Your task to perform on an android device: Toggle the flashlight Image 0: 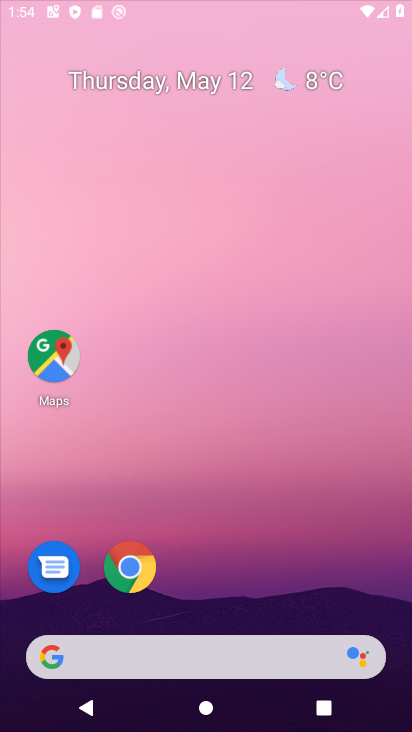
Step 0: click (211, 48)
Your task to perform on an android device: Toggle the flashlight Image 1: 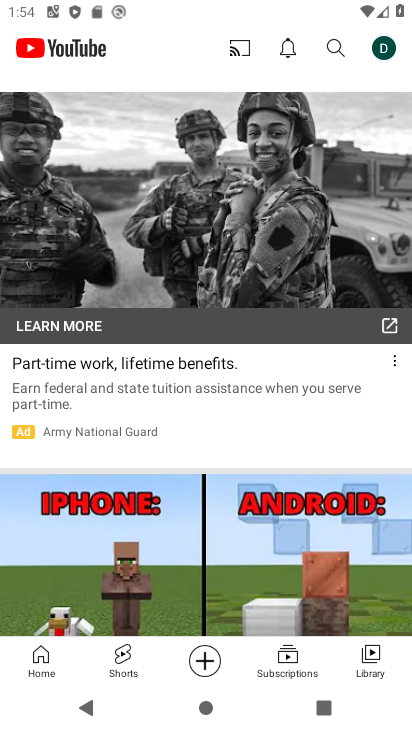
Step 1: press home button
Your task to perform on an android device: Toggle the flashlight Image 2: 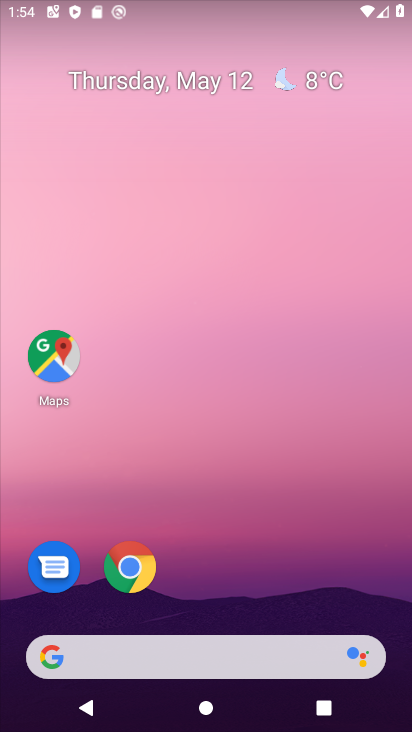
Step 2: drag from (234, 598) to (226, 134)
Your task to perform on an android device: Toggle the flashlight Image 3: 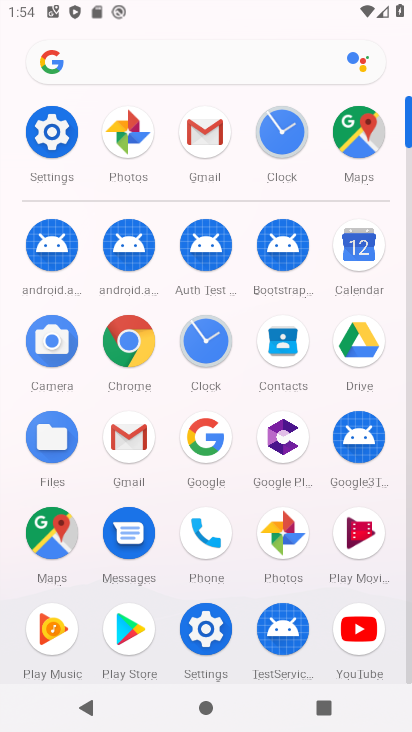
Step 3: click (200, 619)
Your task to perform on an android device: Toggle the flashlight Image 4: 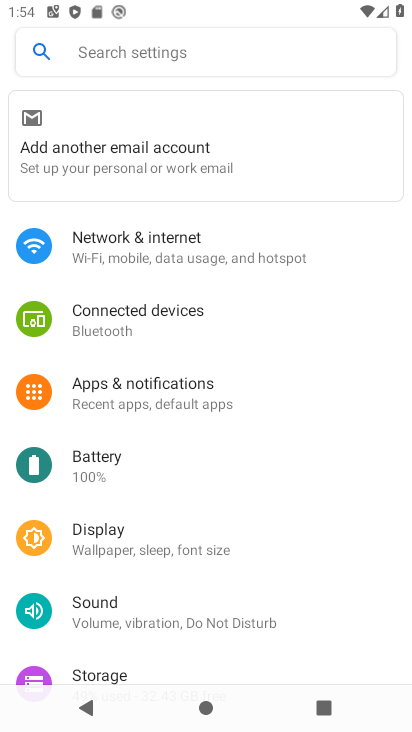
Step 4: click (138, 49)
Your task to perform on an android device: Toggle the flashlight Image 5: 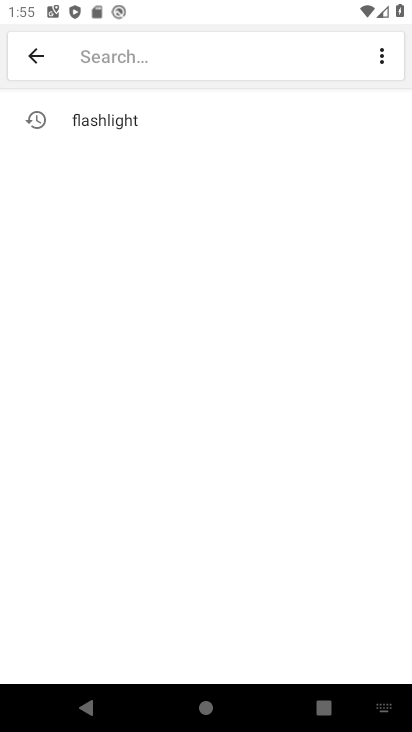
Step 5: click (132, 107)
Your task to perform on an android device: Toggle the flashlight Image 6: 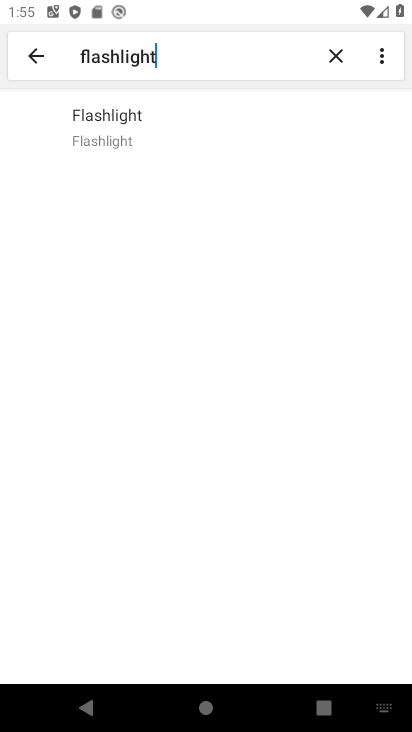
Step 6: click (150, 126)
Your task to perform on an android device: Toggle the flashlight Image 7: 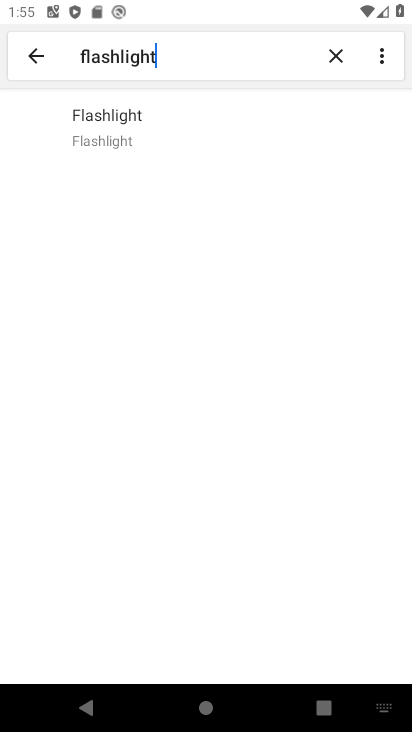
Step 7: click (137, 117)
Your task to perform on an android device: Toggle the flashlight Image 8: 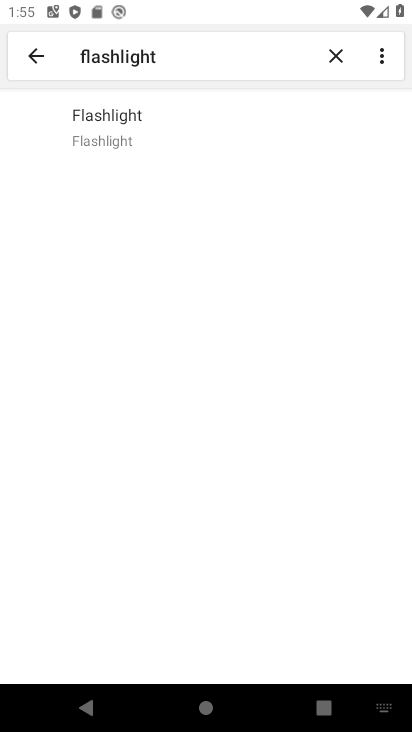
Step 8: task complete